Your task to perform on an android device: change the clock display to digital Image 0: 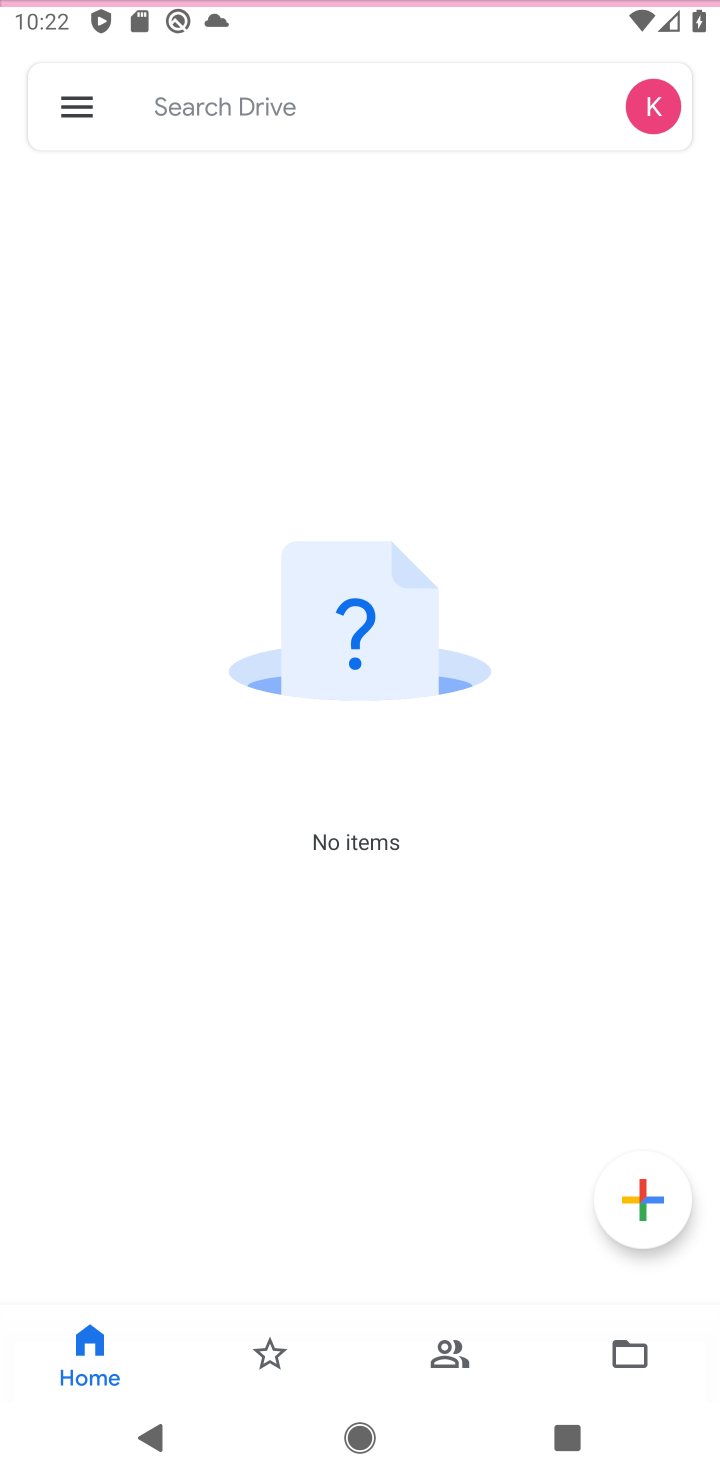
Step 0: press home button
Your task to perform on an android device: change the clock display to digital Image 1: 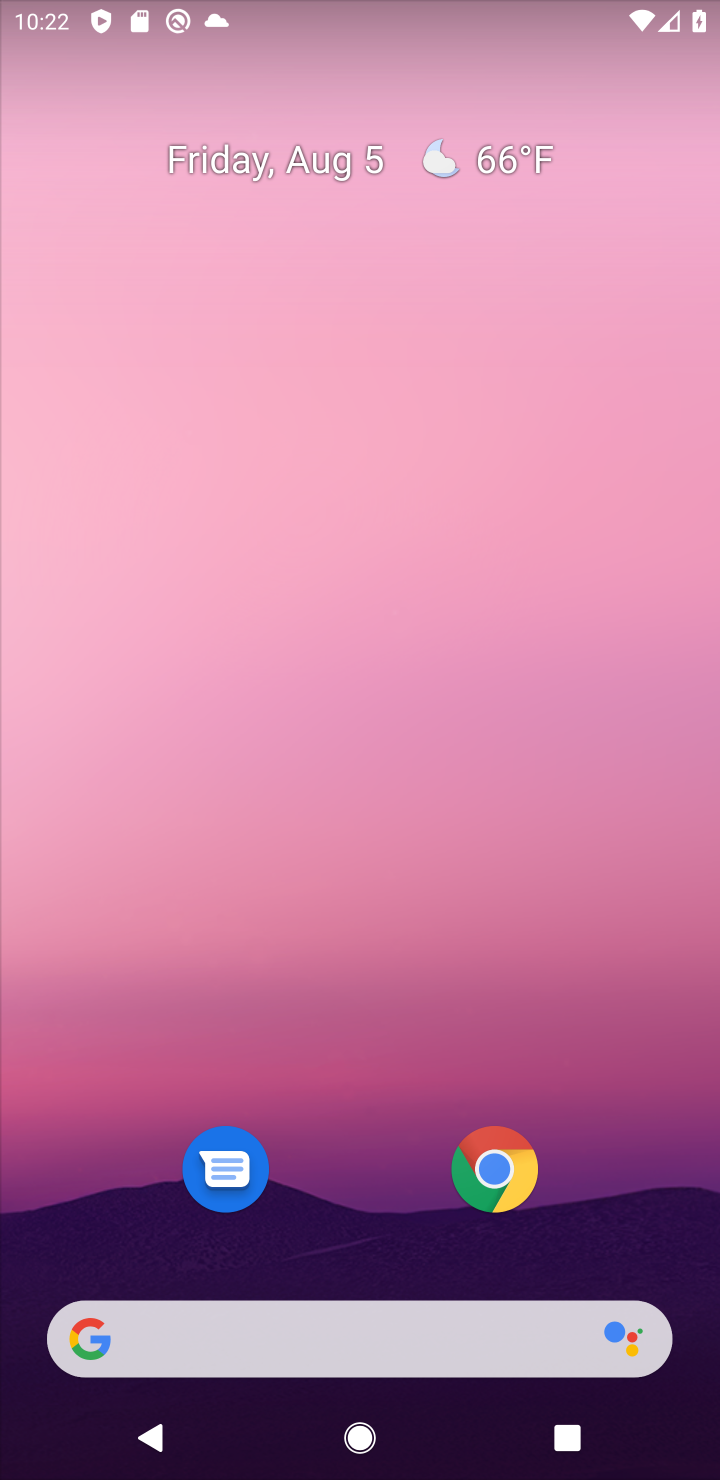
Step 1: drag from (642, 1208) to (547, 280)
Your task to perform on an android device: change the clock display to digital Image 2: 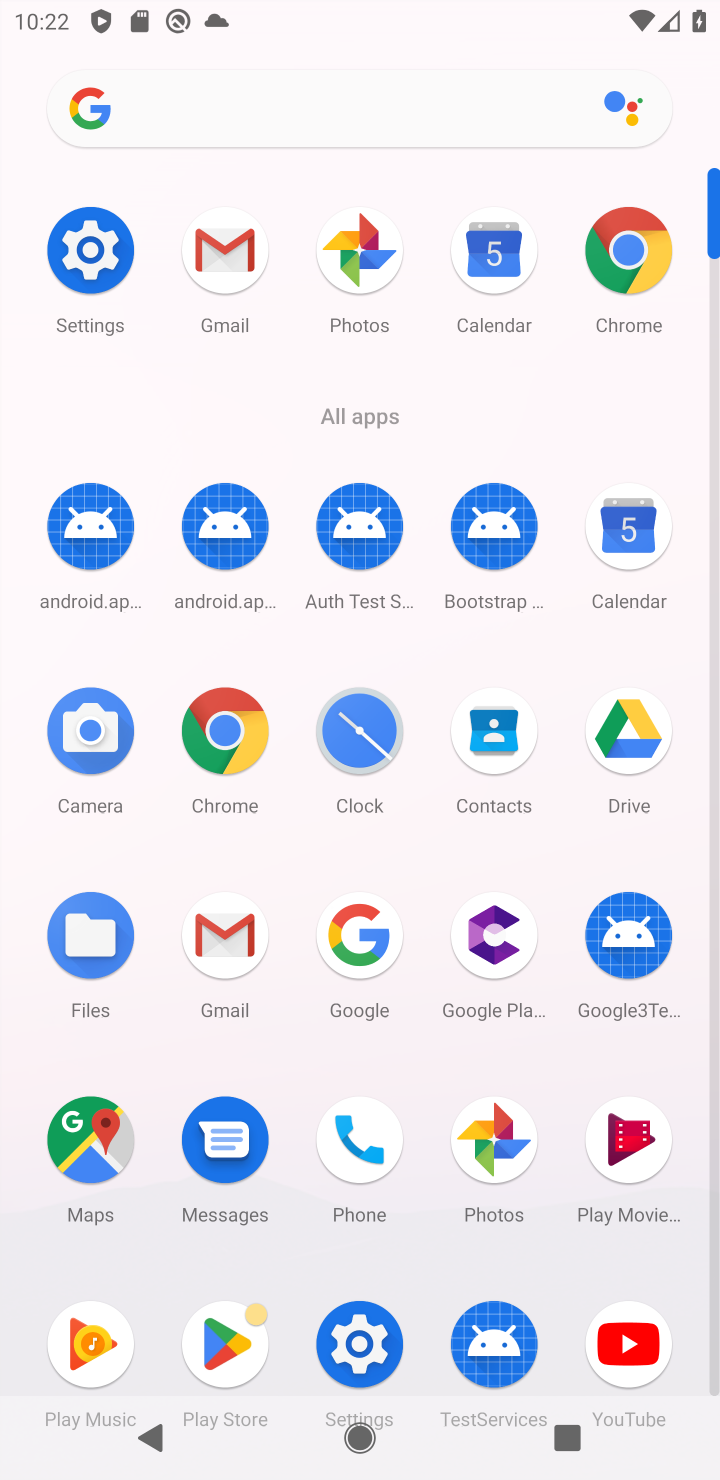
Step 2: click (352, 734)
Your task to perform on an android device: change the clock display to digital Image 3: 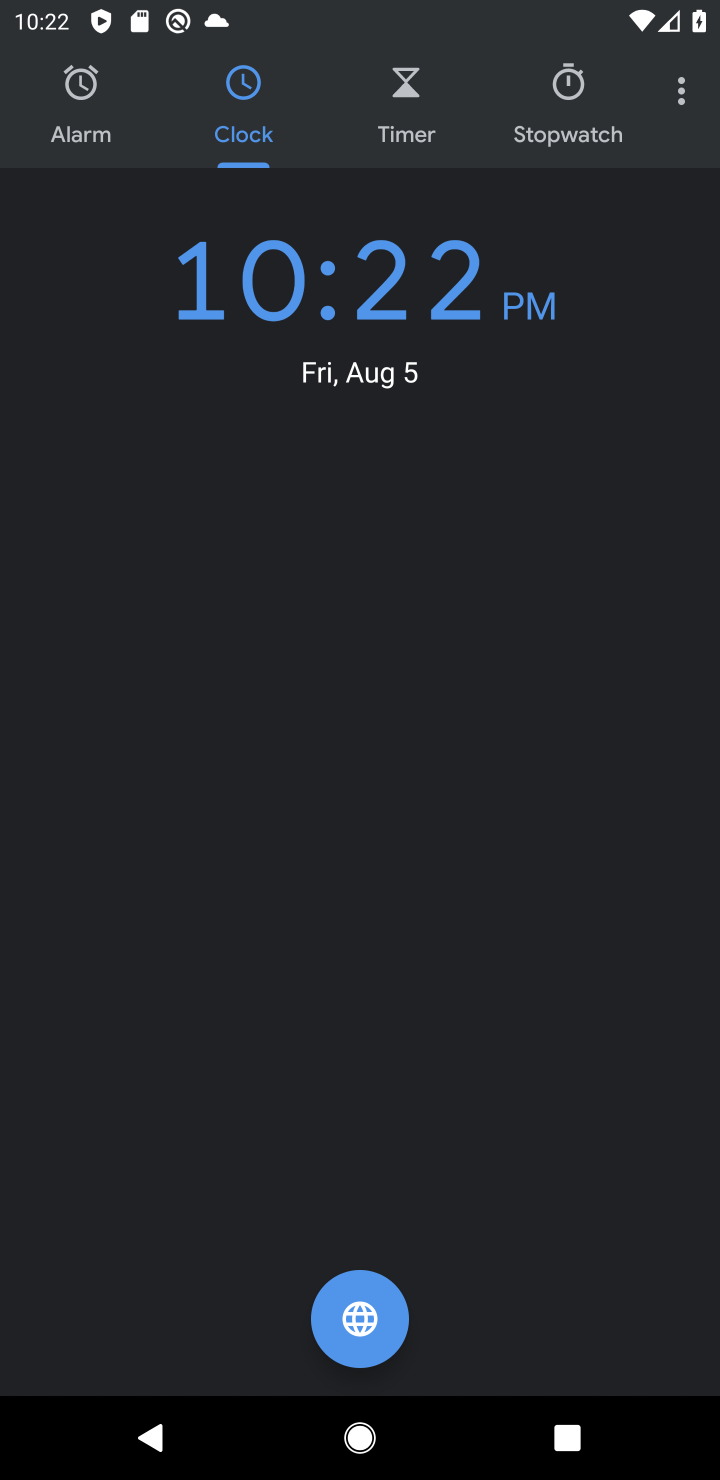
Step 3: click (672, 113)
Your task to perform on an android device: change the clock display to digital Image 4: 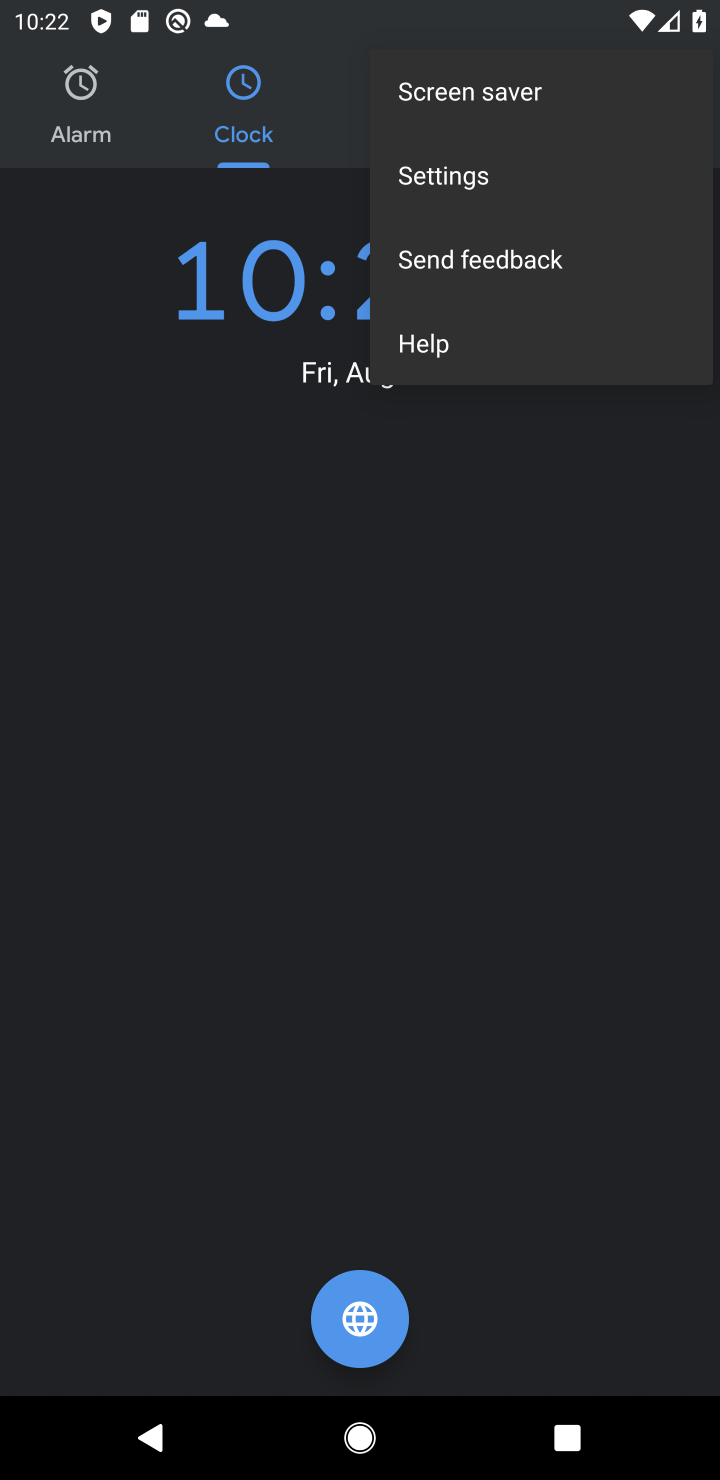
Step 4: click (443, 175)
Your task to perform on an android device: change the clock display to digital Image 5: 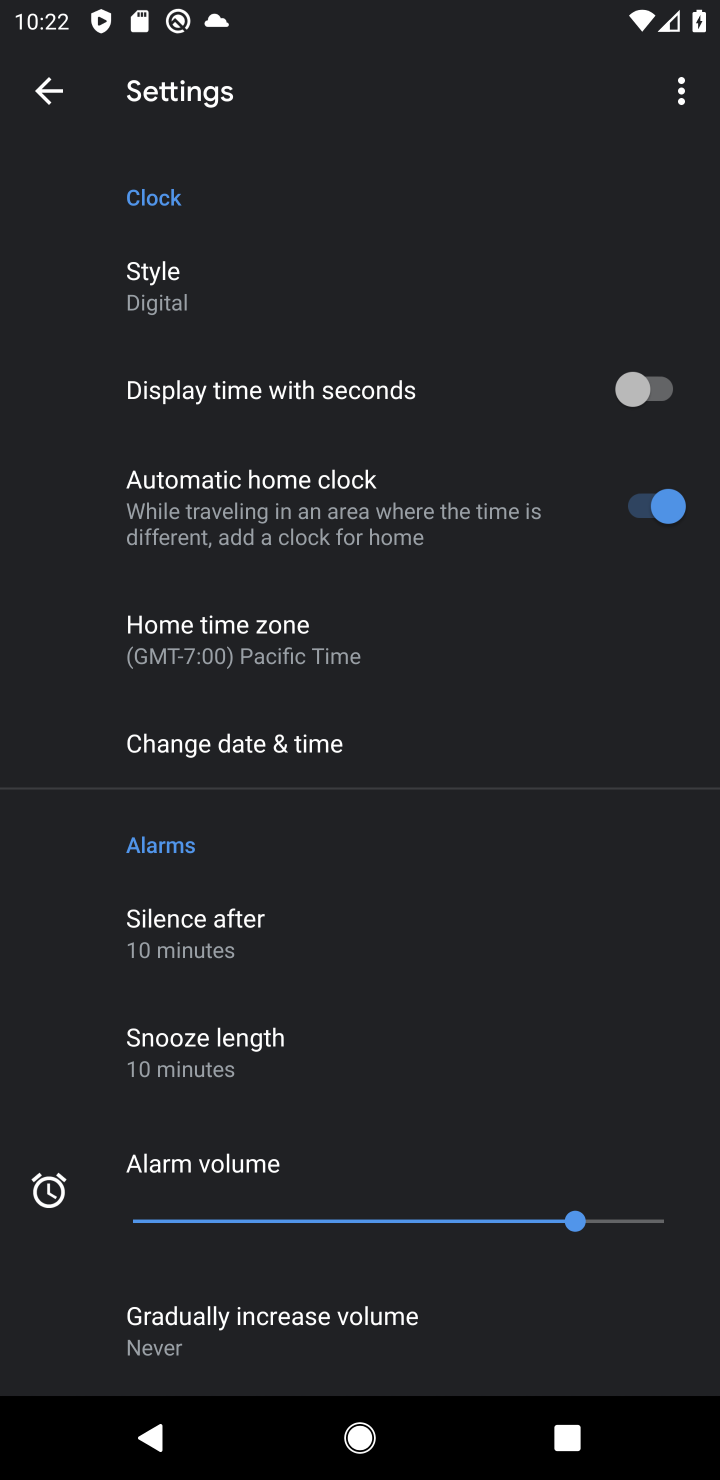
Step 5: task complete